Your task to perform on an android device: turn on airplane mode Image 0: 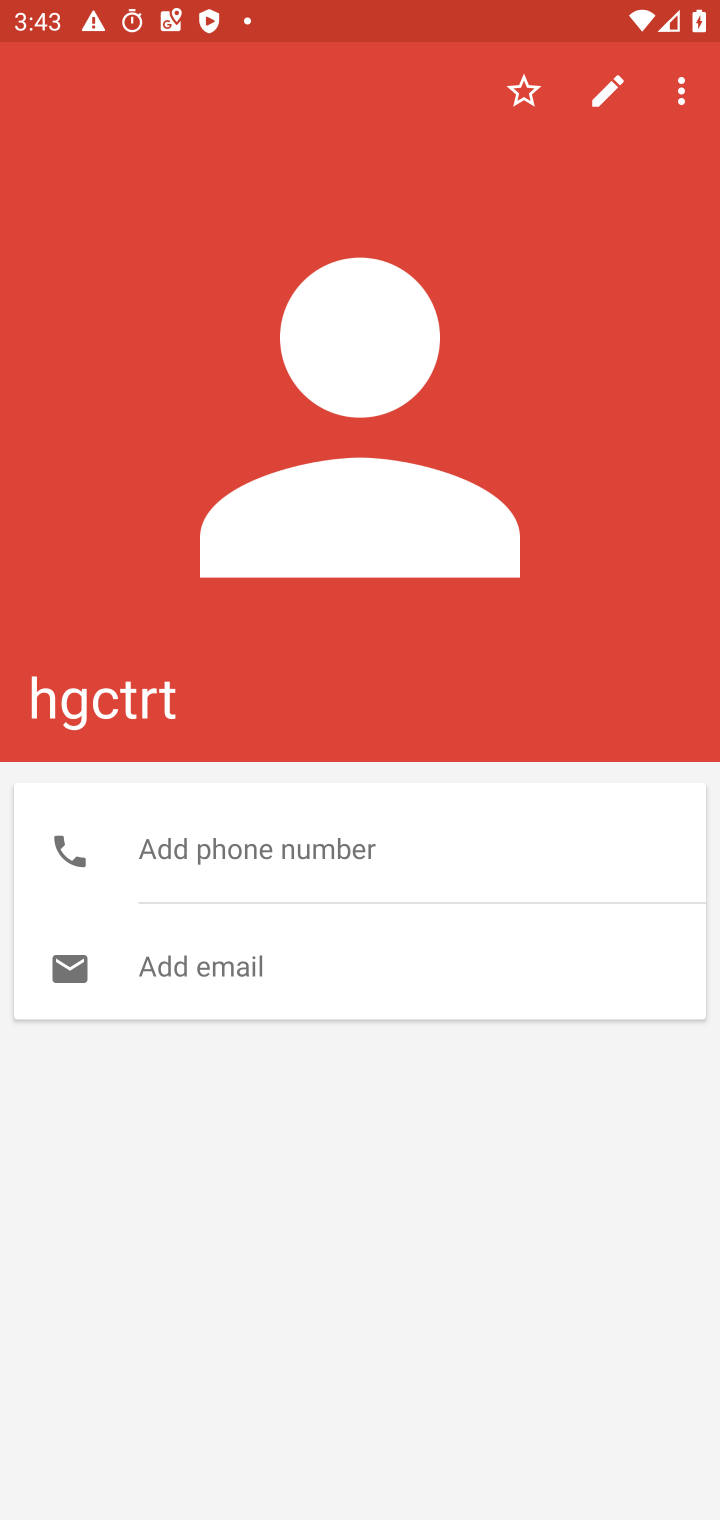
Step 0: press home button
Your task to perform on an android device: turn on airplane mode Image 1: 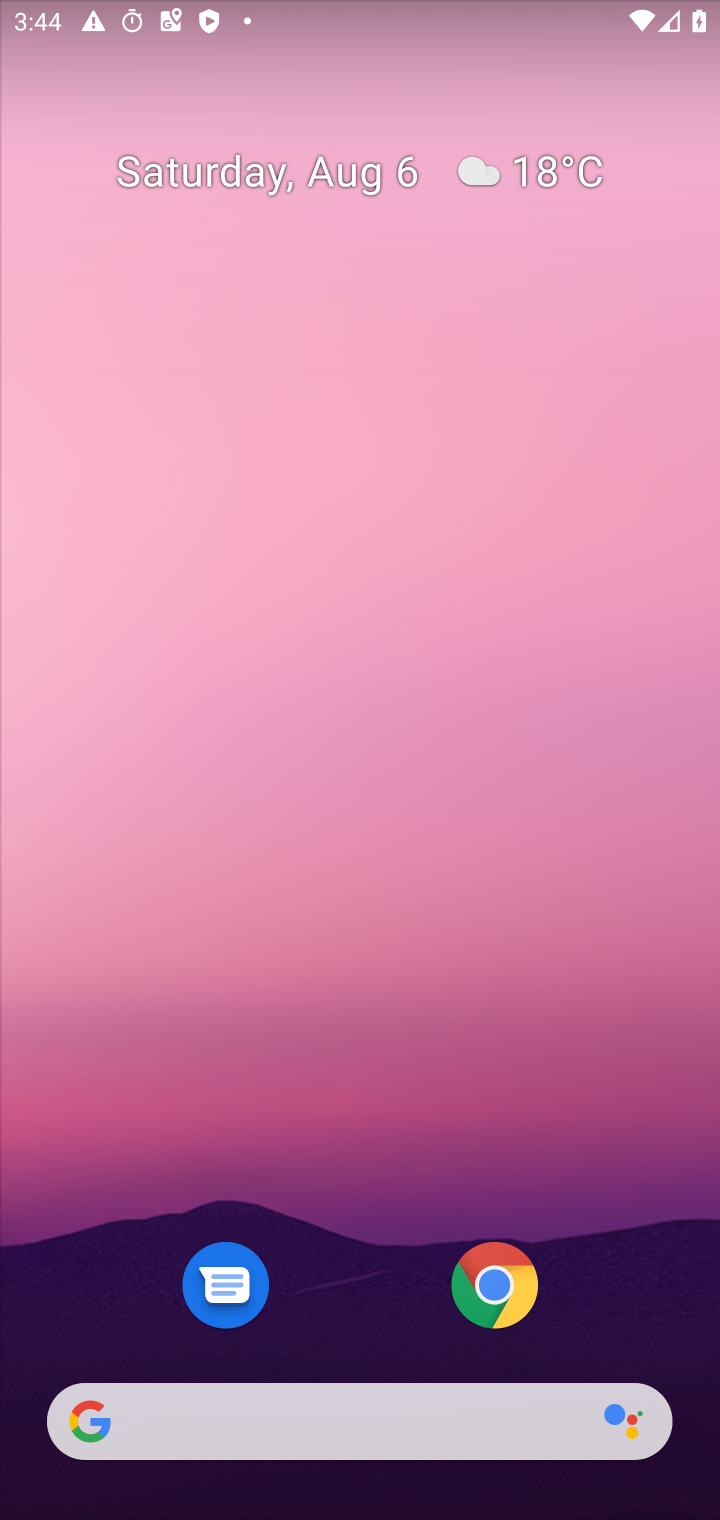
Step 1: drag from (398, 1212) to (474, 121)
Your task to perform on an android device: turn on airplane mode Image 2: 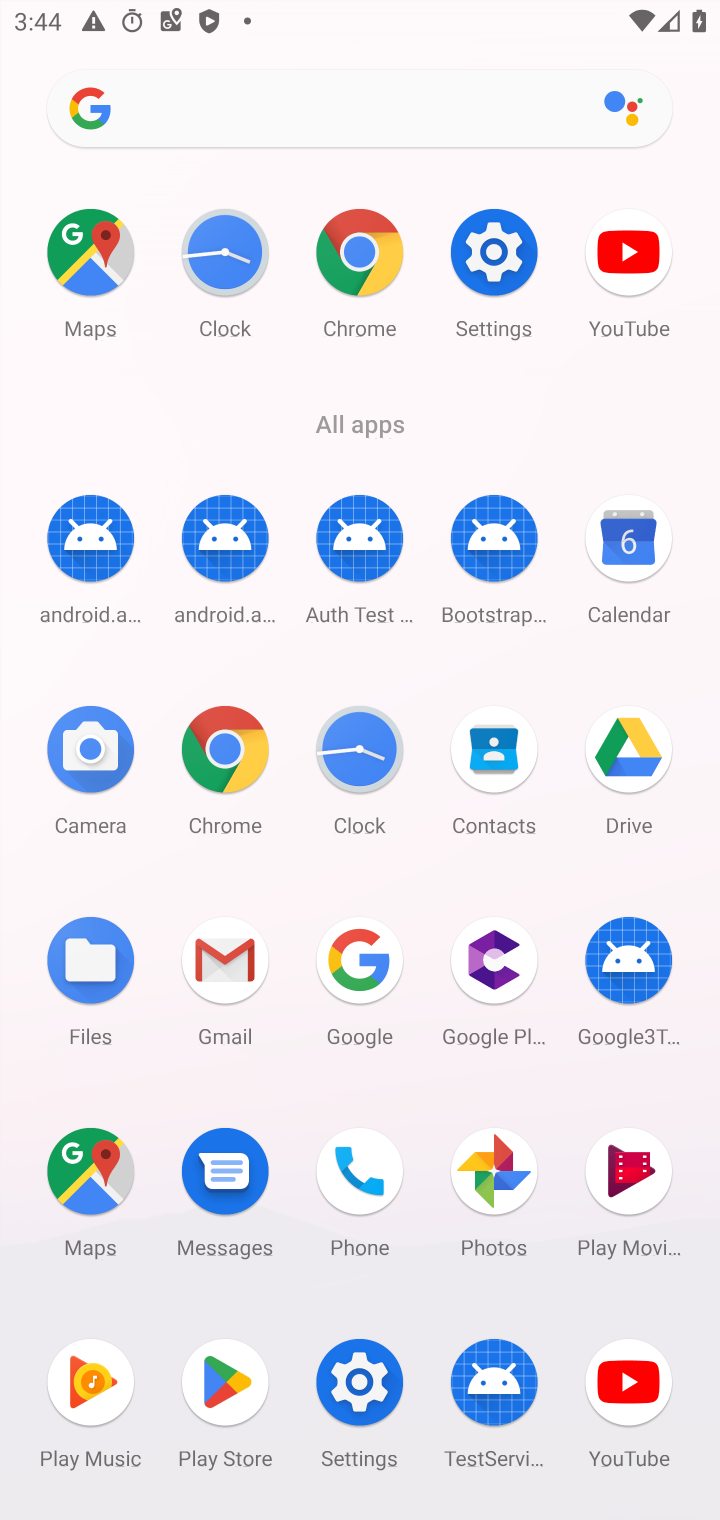
Step 2: drag from (449, 13) to (478, 1222)
Your task to perform on an android device: turn on airplane mode Image 3: 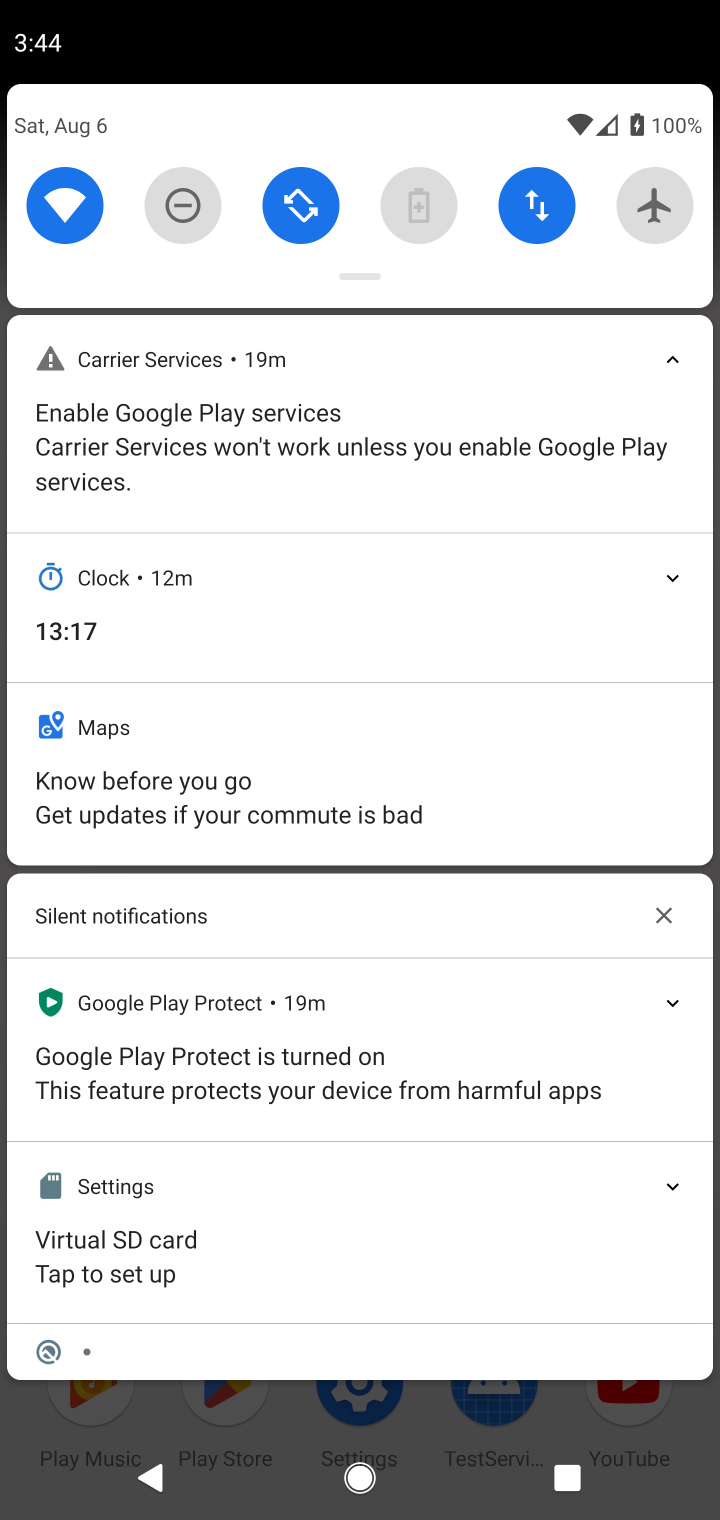
Step 3: click (661, 198)
Your task to perform on an android device: turn on airplane mode Image 4: 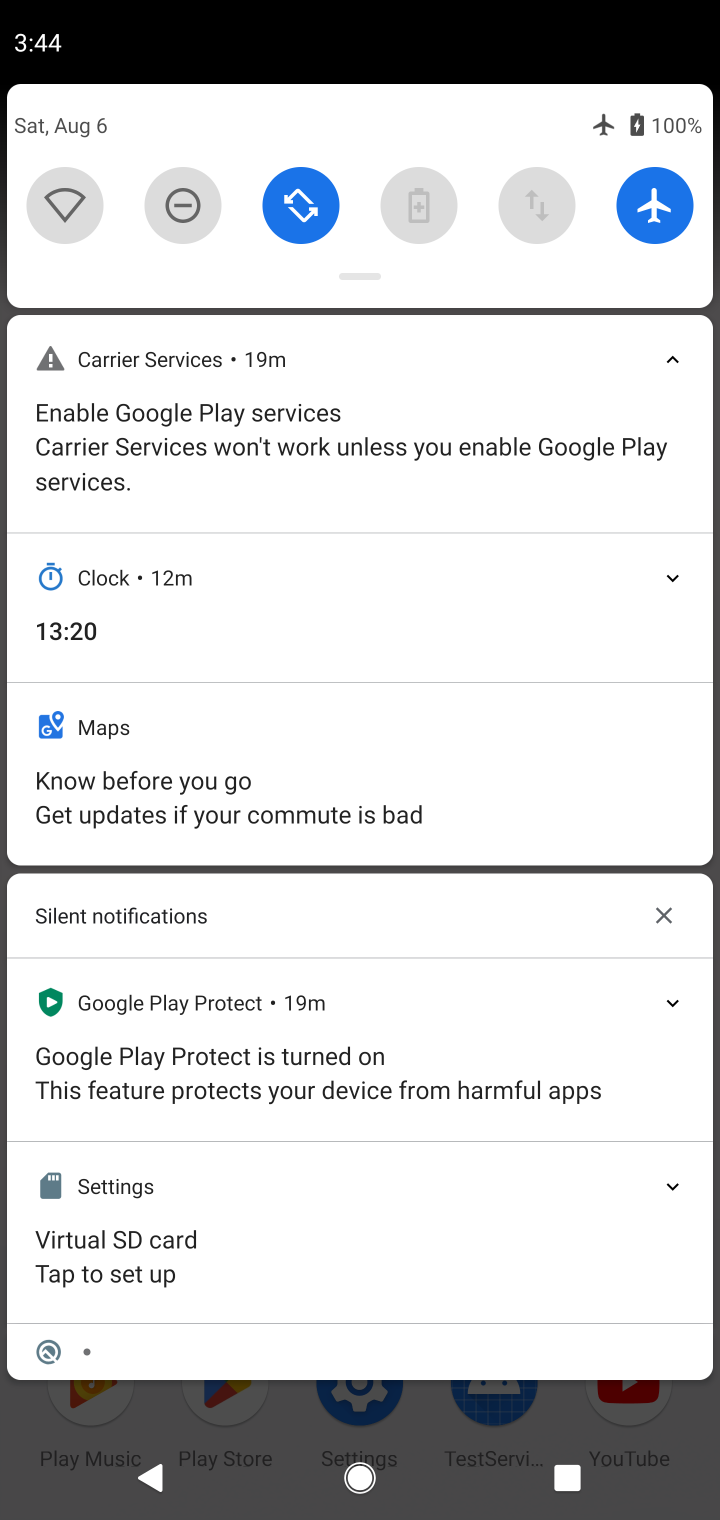
Step 4: task complete